Your task to perform on an android device: Do I have any events this weekend? Image 0: 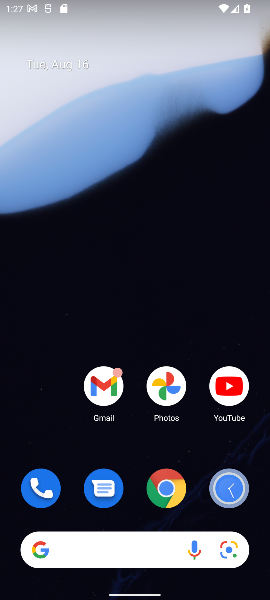
Step 0: drag from (139, 339) to (215, 79)
Your task to perform on an android device: Do I have any events this weekend? Image 1: 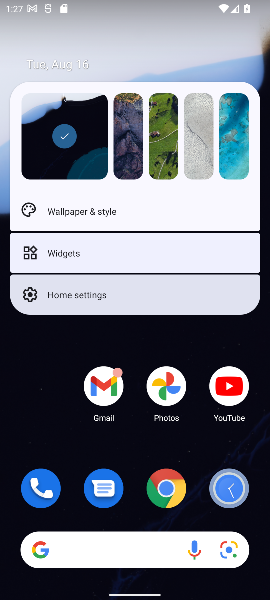
Step 1: click (149, 341)
Your task to perform on an android device: Do I have any events this weekend? Image 2: 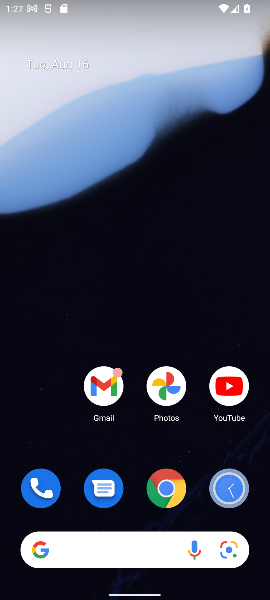
Step 2: drag from (135, 367) to (136, 179)
Your task to perform on an android device: Do I have any events this weekend? Image 3: 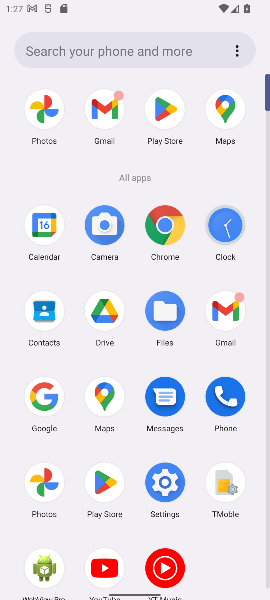
Step 3: click (47, 234)
Your task to perform on an android device: Do I have any events this weekend? Image 4: 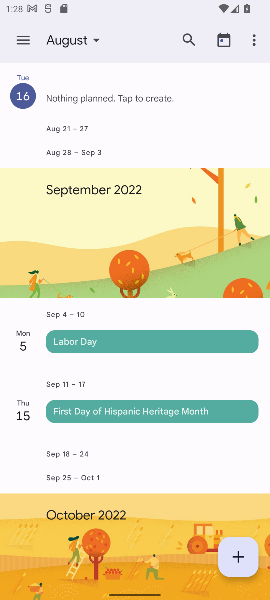
Step 4: task complete